Your task to perform on an android device: change notifications settings Image 0: 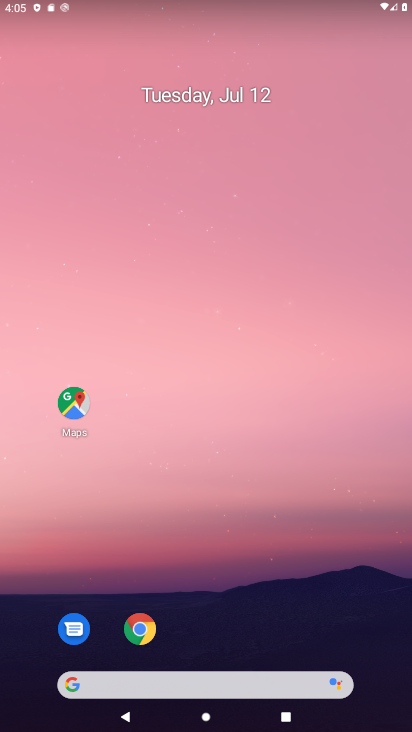
Step 0: press home button
Your task to perform on an android device: change notifications settings Image 1: 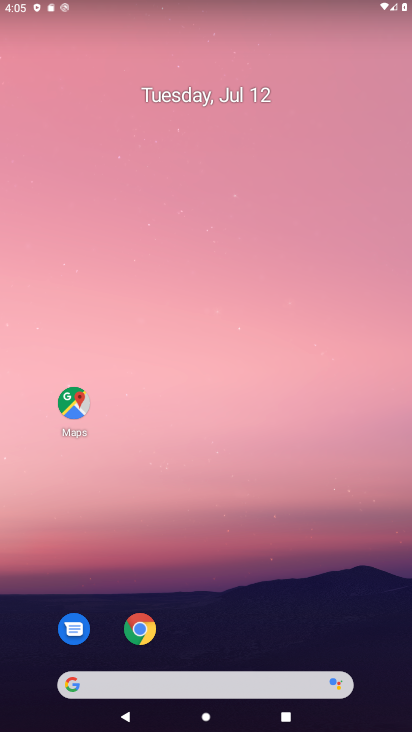
Step 1: drag from (235, 659) to (142, 99)
Your task to perform on an android device: change notifications settings Image 2: 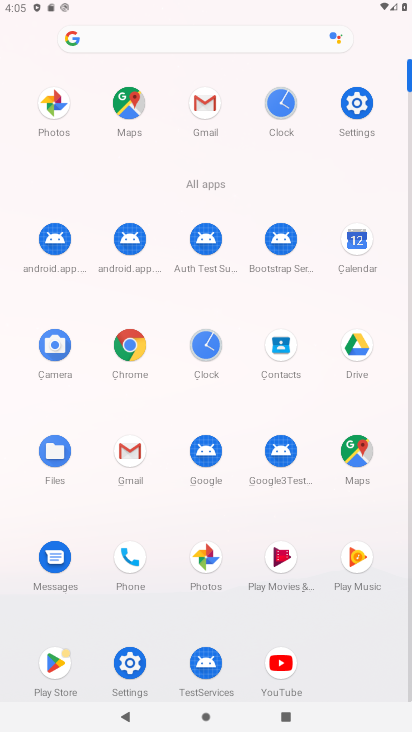
Step 2: click (361, 109)
Your task to perform on an android device: change notifications settings Image 3: 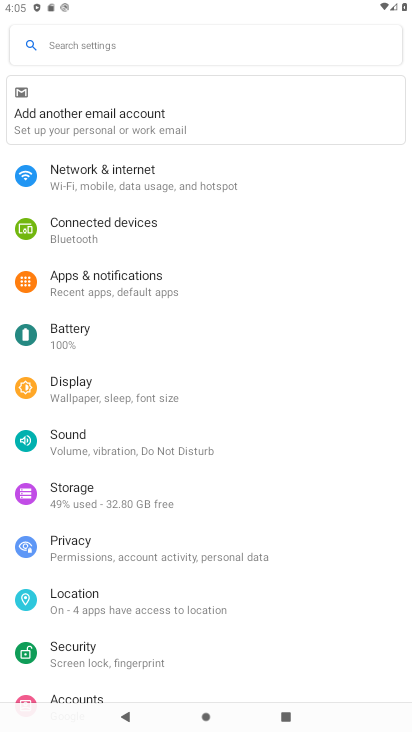
Step 3: click (105, 277)
Your task to perform on an android device: change notifications settings Image 4: 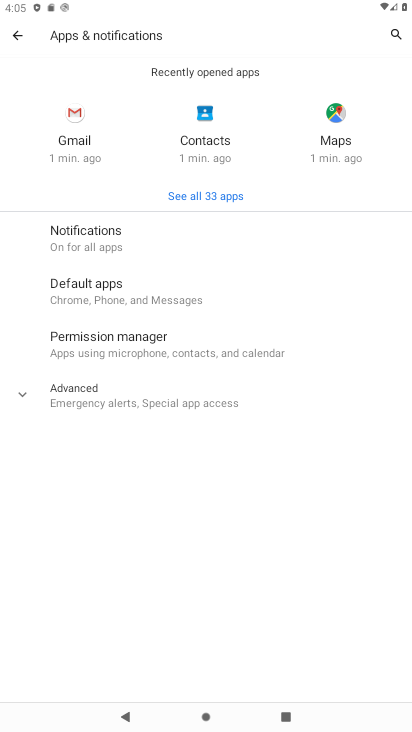
Step 4: click (80, 235)
Your task to perform on an android device: change notifications settings Image 5: 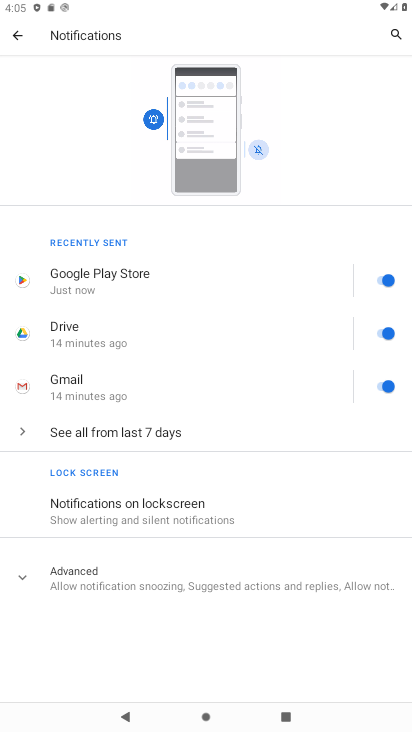
Step 5: click (129, 507)
Your task to perform on an android device: change notifications settings Image 6: 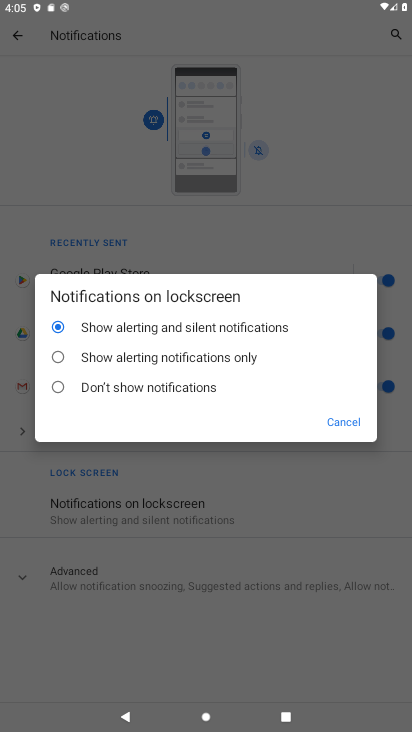
Step 6: click (54, 387)
Your task to perform on an android device: change notifications settings Image 7: 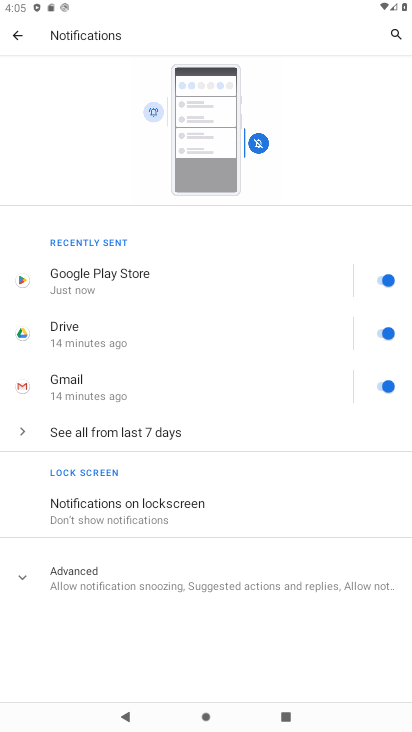
Step 7: task complete